Your task to perform on an android device: turn off priority inbox in the gmail app Image 0: 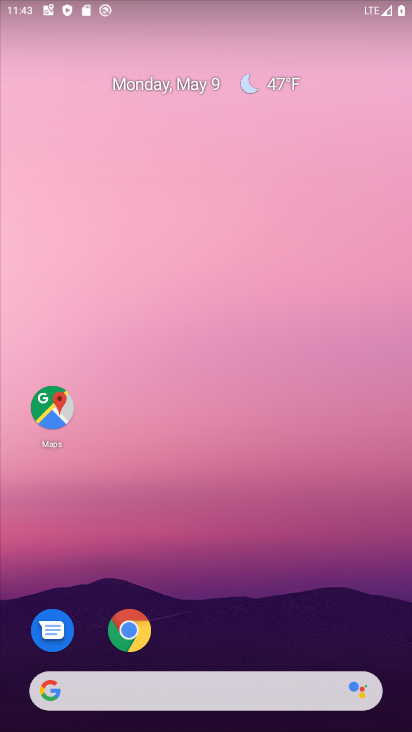
Step 0: press home button
Your task to perform on an android device: turn off priority inbox in the gmail app Image 1: 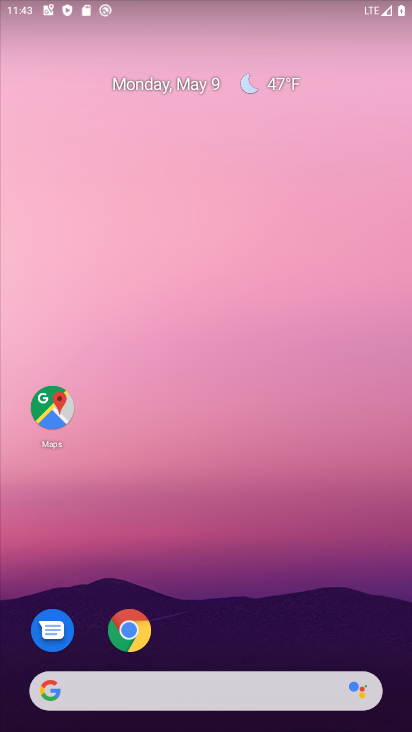
Step 1: drag from (173, 692) to (295, 308)
Your task to perform on an android device: turn off priority inbox in the gmail app Image 2: 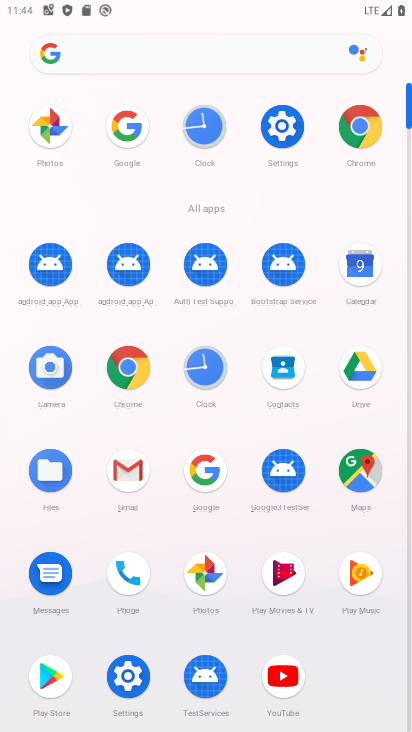
Step 2: click (130, 480)
Your task to perform on an android device: turn off priority inbox in the gmail app Image 3: 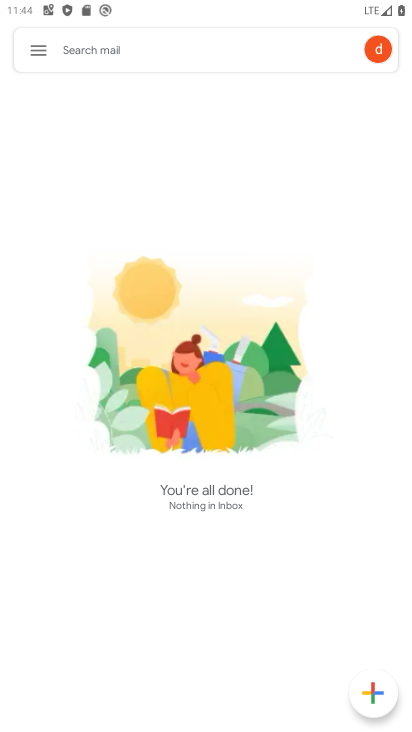
Step 3: click (37, 50)
Your task to perform on an android device: turn off priority inbox in the gmail app Image 4: 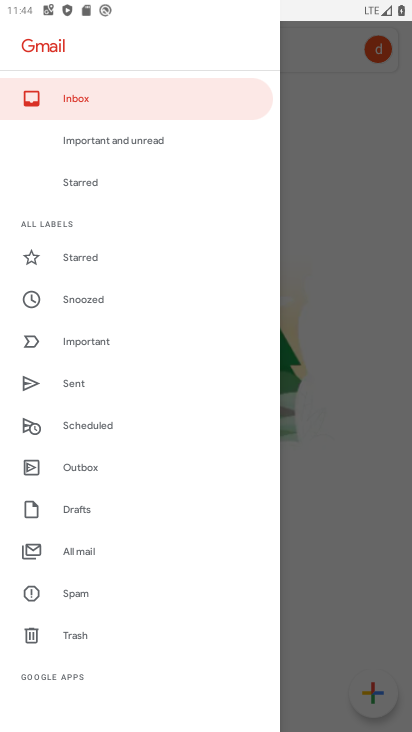
Step 4: drag from (105, 619) to (172, 298)
Your task to perform on an android device: turn off priority inbox in the gmail app Image 5: 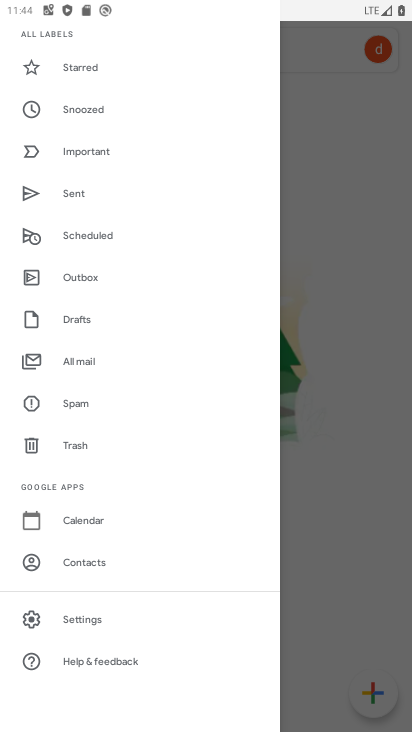
Step 5: click (82, 615)
Your task to perform on an android device: turn off priority inbox in the gmail app Image 6: 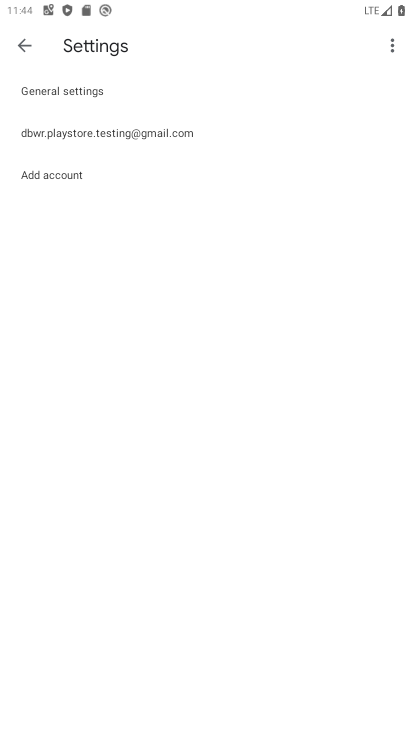
Step 6: click (128, 133)
Your task to perform on an android device: turn off priority inbox in the gmail app Image 7: 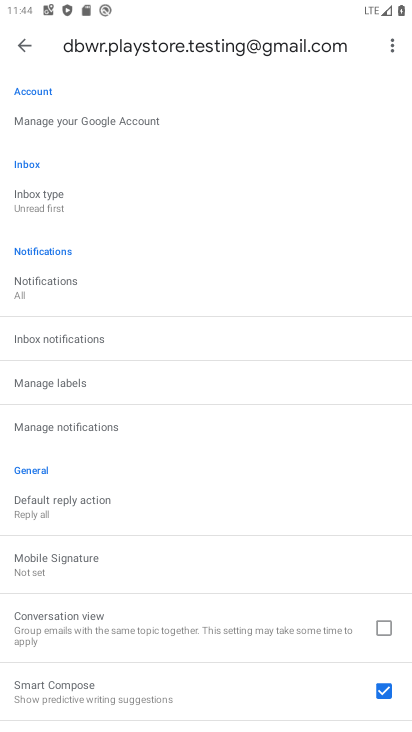
Step 7: click (51, 209)
Your task to perform on an android device: turn off priority inbox in the gmail app Image 8: 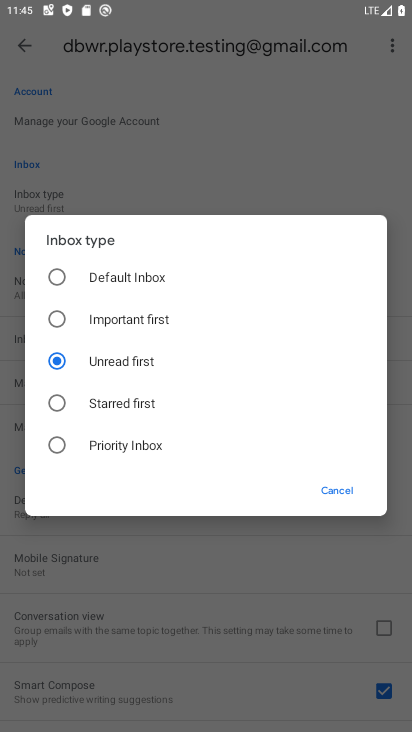
Step 8: task complete